Your task to perform on an android device: clear all cookies in the chrome app Image 0: 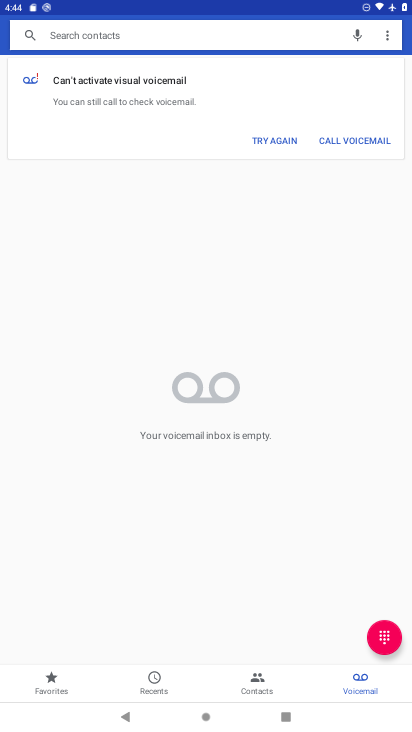
Step 0: press home button
Your task to perform on an android device: clear all cookies in the chrome app Image 1: 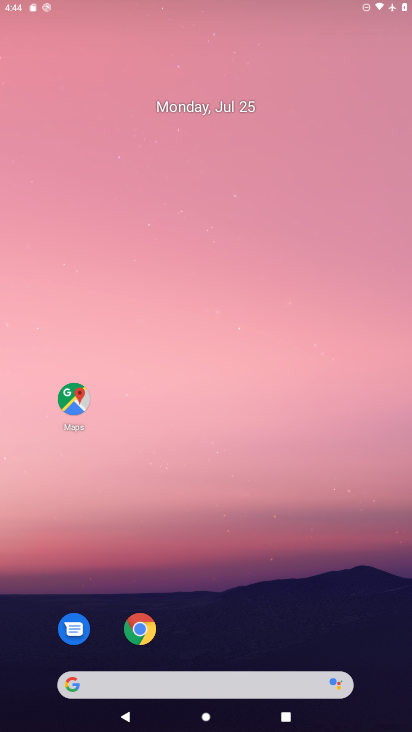
Step 1: drag from (297, 650) to (269, 68)
Your task to perform on an android device: clear all cookies in the chrome app Image 2: 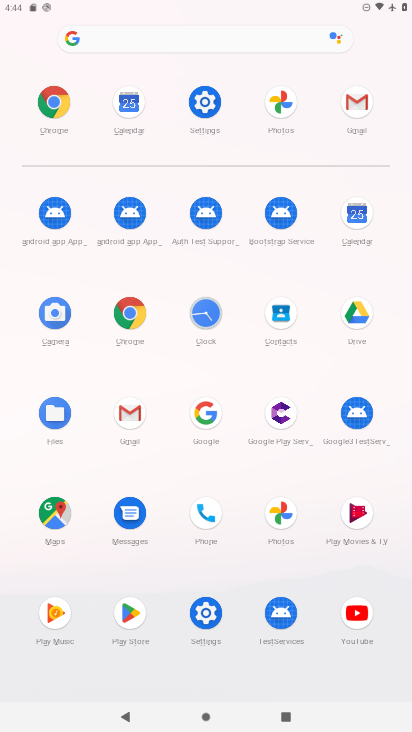
Step 2: click (129, 331)
Your task to perform on an android device: clear all cookies in the chrome app Image 3: 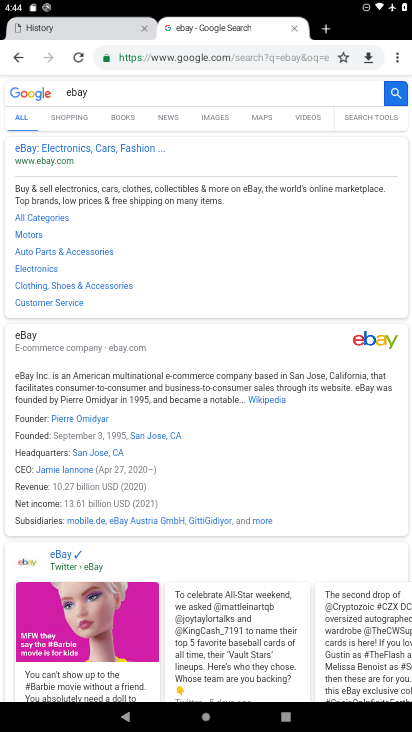
Step 3: drag from (398, 56) to (296, 174)
Your task to perform on an android device: clear all cookies in the chrome app Image 4: 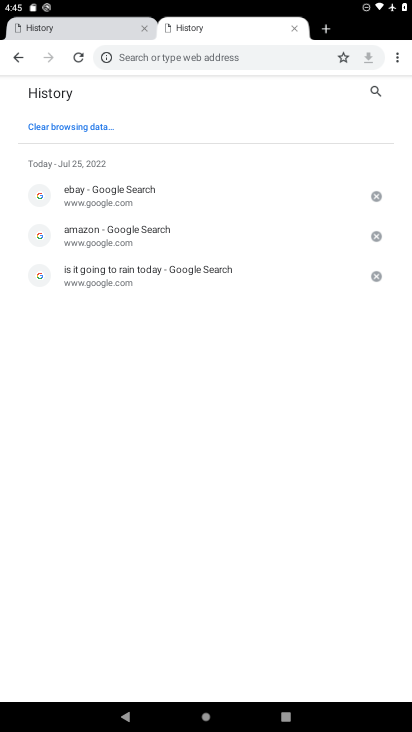
Step 4: click (44, 115)
Your task to perform on an android device: clear all cookies in the chrome app Image 5: 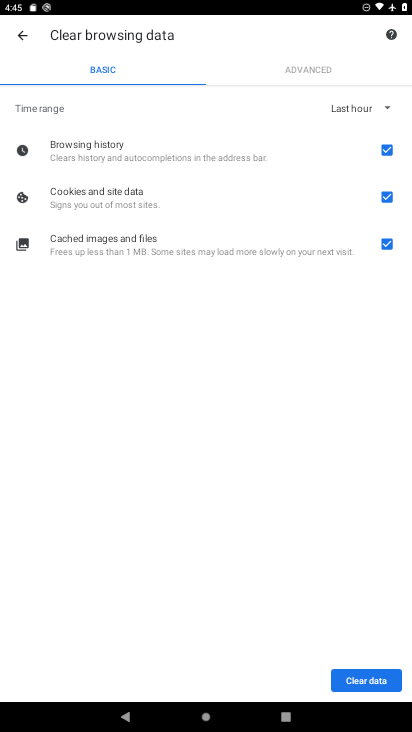
Step 5: click (361, 682)
Your task to perform on an android device: clear all cookies in the chrome app Image 6: 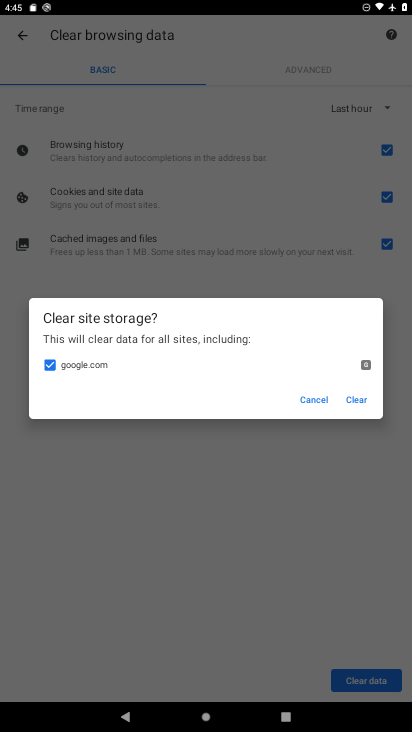
Step 6: click (353, 395)
Your task to perform on an android device: clear all cookies in the chrome app Image 7: 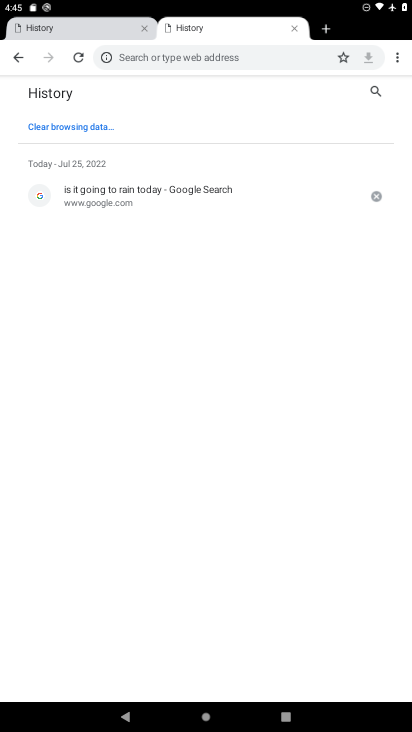
Step 7: click (379, 190)
Your task to perform on an android device: clear all cookies in the chrome app Image 8: 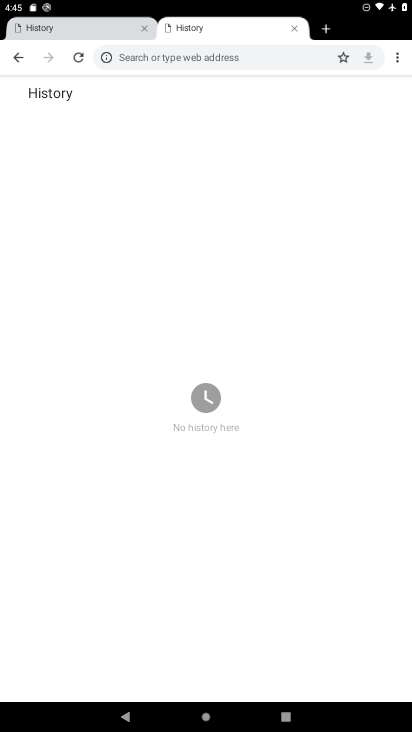
Step 8: task complete